Your task to perform on an android device: Show me the alarms in the clock app Image 0: 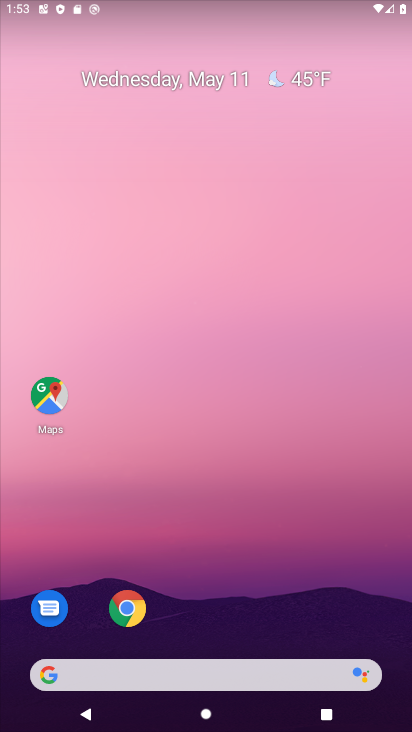
Step 0: drag from (237, 273) to (237, 97)
Your task to perform on an android device: Show me the alarms in the clock app Image 1: 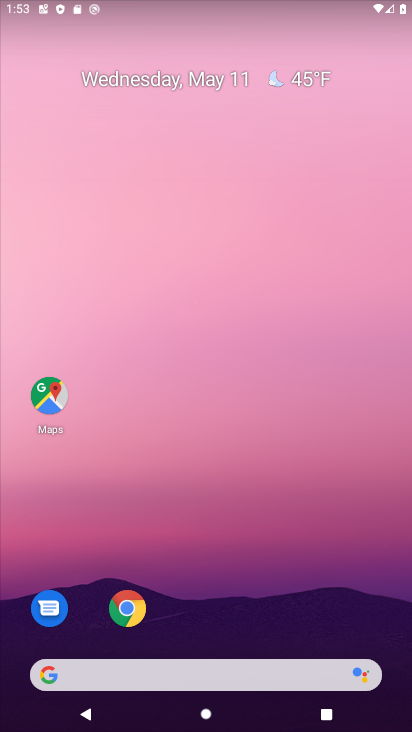
Step 1: drag from (207, 619) to (298, 75)
Your task to perform on an android device: Show me the alarms in the clock app Image 2: 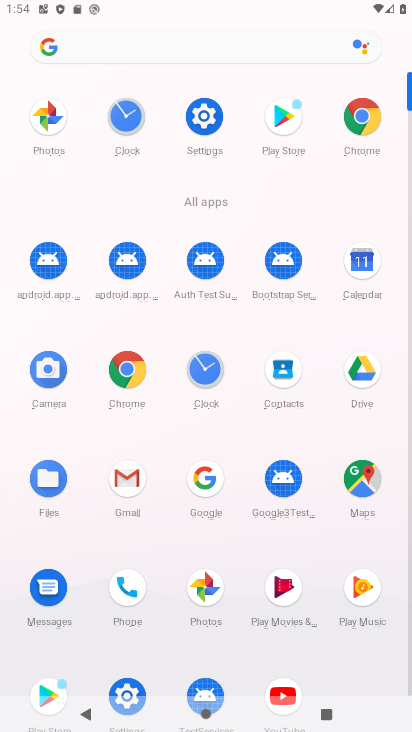
Step 2: click (125, 108)
Your task to perform on an android device: Show me the alarms in the clock app Image 3: 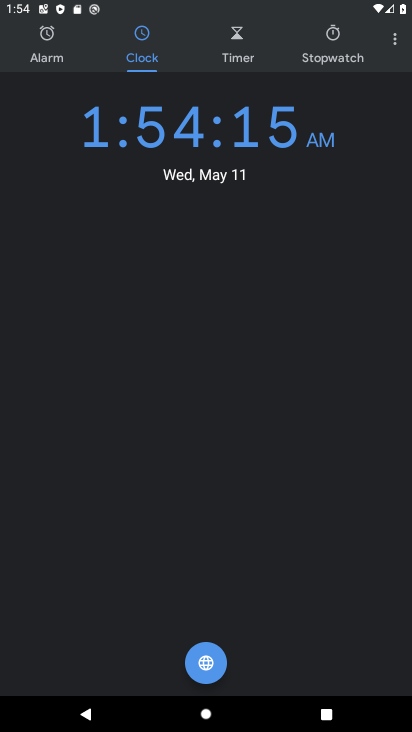
Step 3: click (55, 49)
Your task to perform on an android device: Show me the alarms in the clock app Image 4: 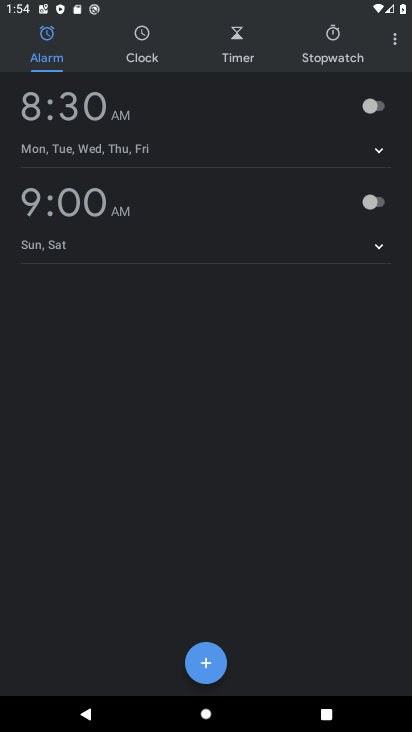
Step 4: task complete